Your task to perform on an android device: Clear the shopping cart on ebay.com. Search for "asus zenbook" on ebay.com, select the first entry, and add it to the cart. Image 0: 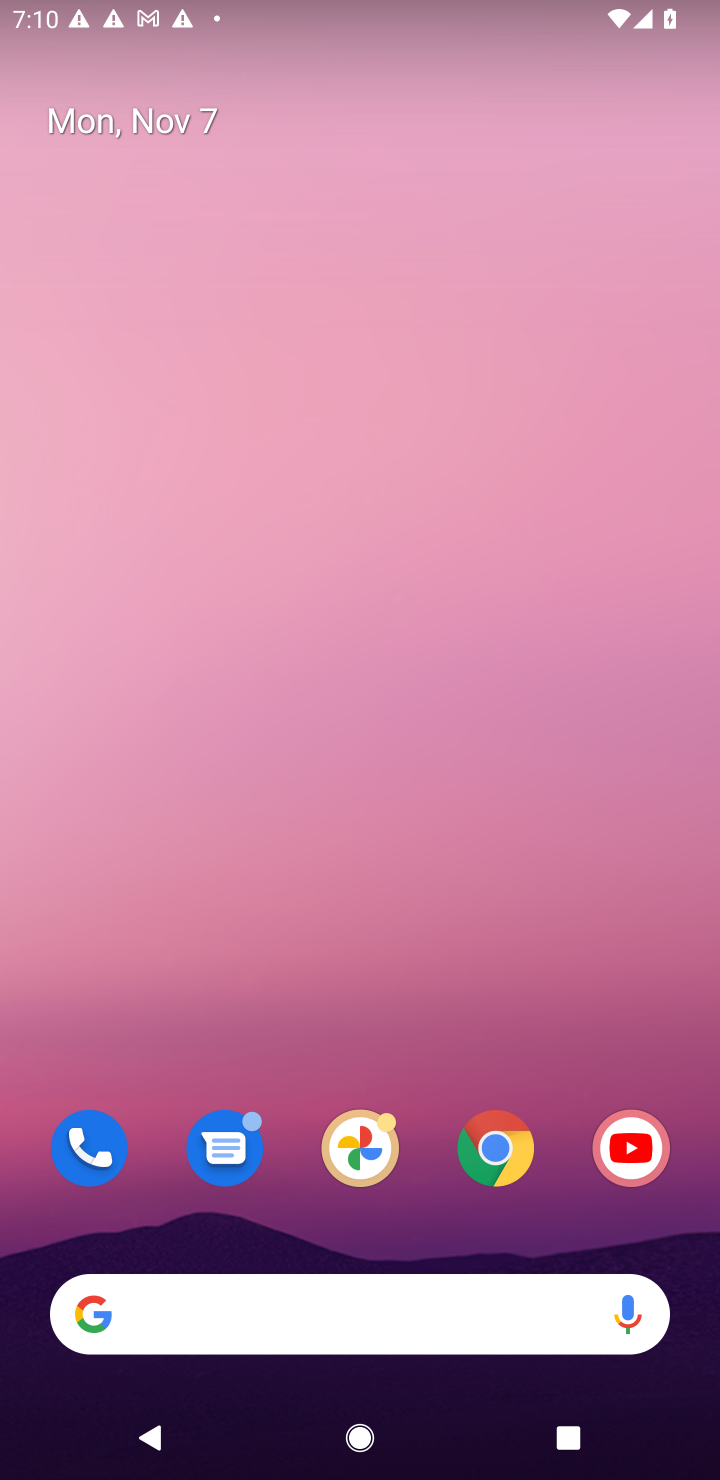
Step 0: click (501, 1143)
Your task to perform on an android device: Clear the shopping cart on ebay.com. Search for "asus zenbook" on ebay.com, select the first entry, and add it to the cart. Image 1: 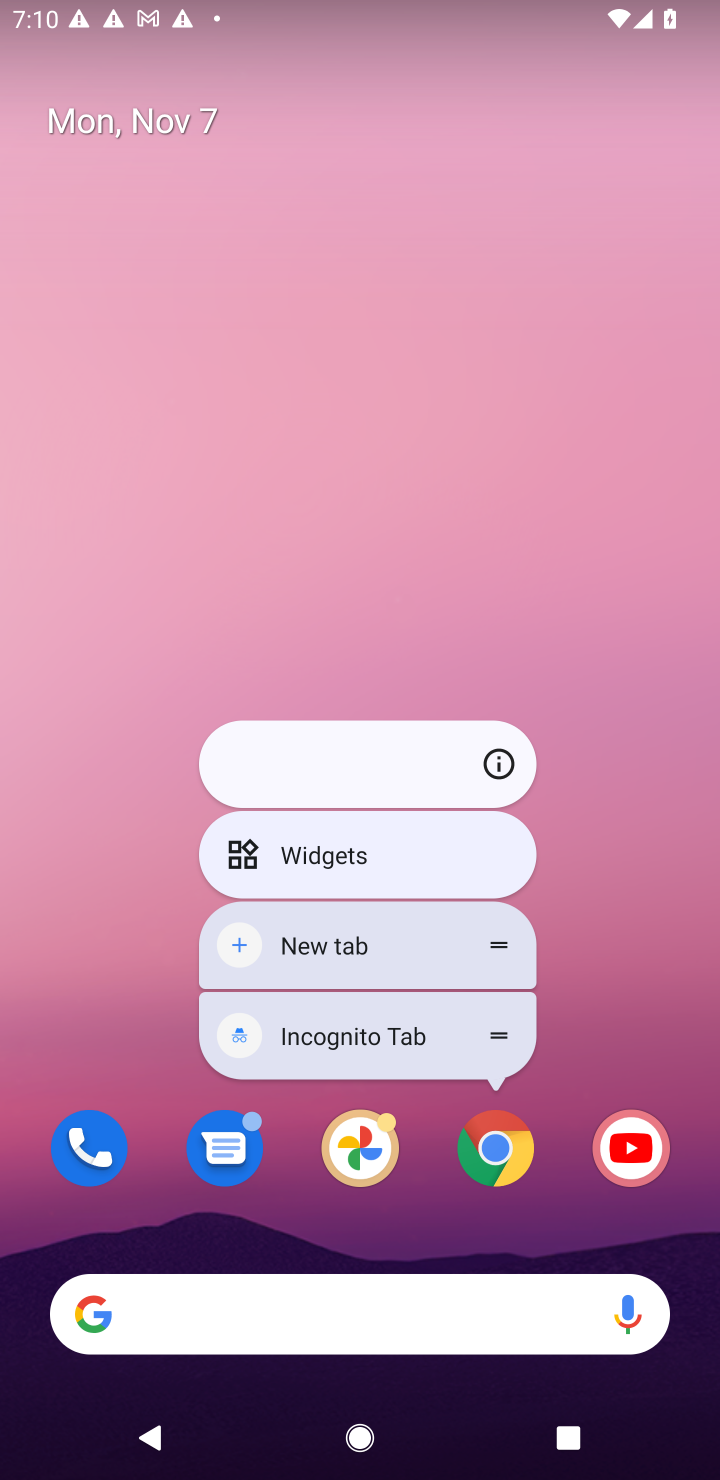
Step 1: click (501, 1143)
Your task to perform on an android device: Clear the shopping cart on ebay.com. Search for "asus zenbook" on ebay.com, select the first entry, and add it to the cart. Image 2: 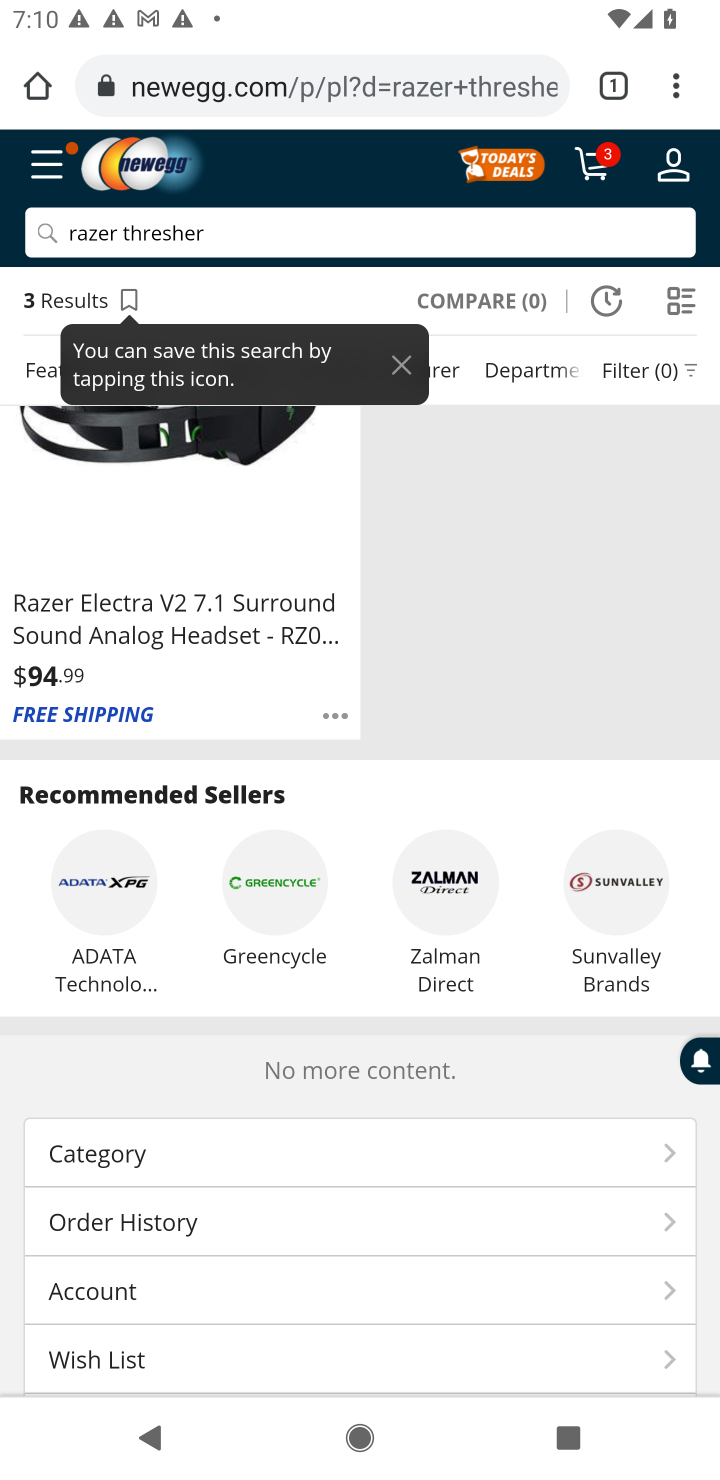
Step 2: click (223, 93)
Your task to perform on an android device: Clear the shopping cart on ebay.com. Search for "asus zenbook" on ebay.com, select the first entry, and add it to the cart. Image 3: 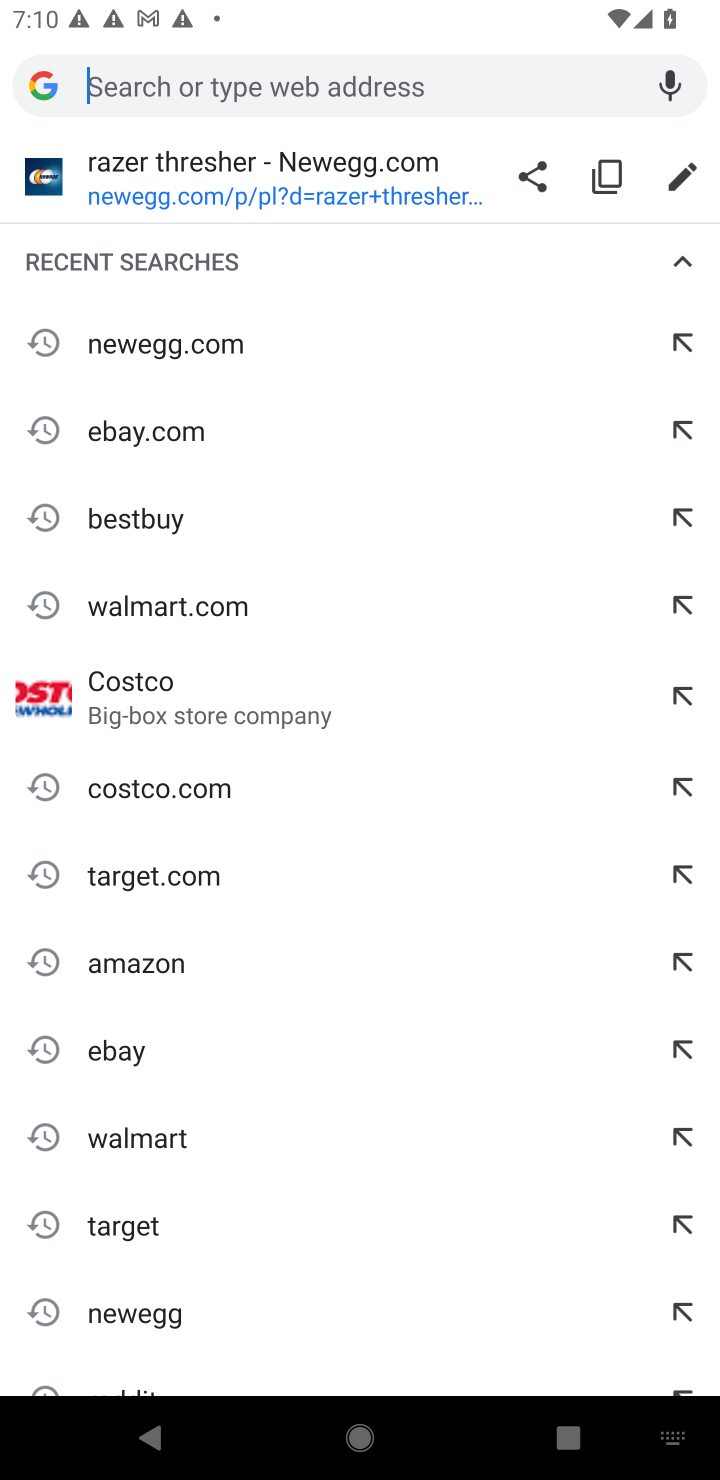
Step 3: type "ebay.com"
Your task to perform on an android device: Clear the shopping cart on ebay.com. Search for "asus zenbook" on ebay.com, select the first entry, and add it to the cart. Image 4: 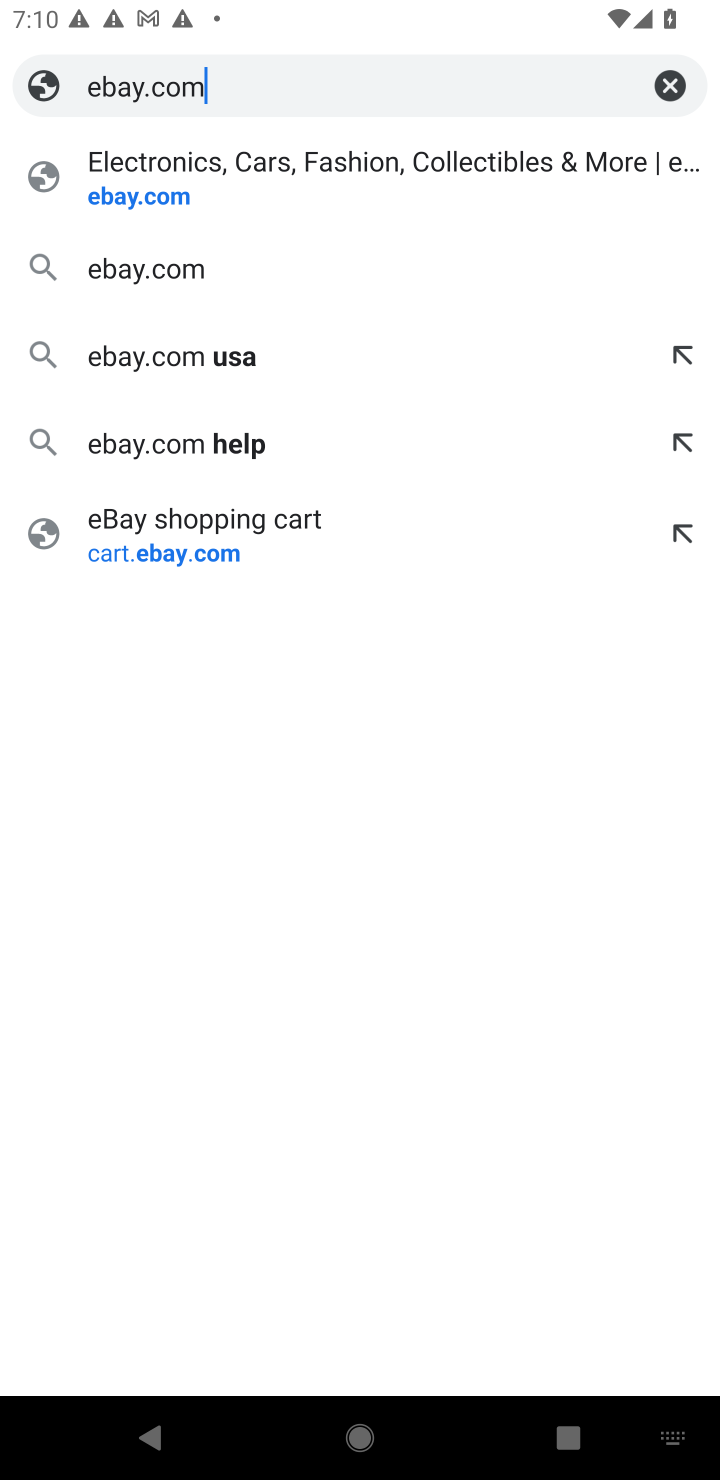
Step 4: click (189, 281)
Your task to perform on an android device: Clear the shopping cart on ebay.com. Search for "asus zenbook" on ebay.com, select the first entry, and add it to the cart. Image 5: 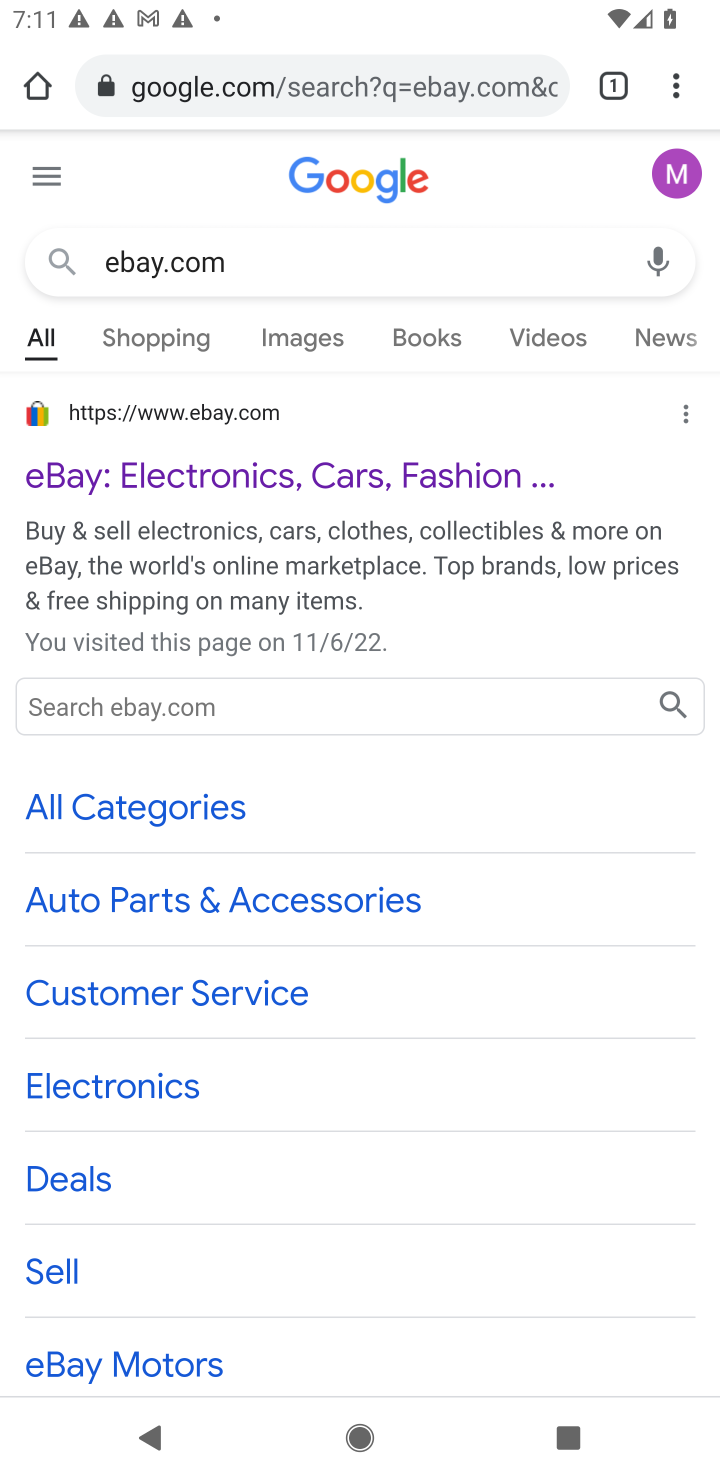
Step 5: click (229, 403)
Your task to perform on an android device: Clear the shopping cart on ebay.com. Search for "asus zenbook" on ebay.com, select the first entry, and add it to the cart. Image 6: 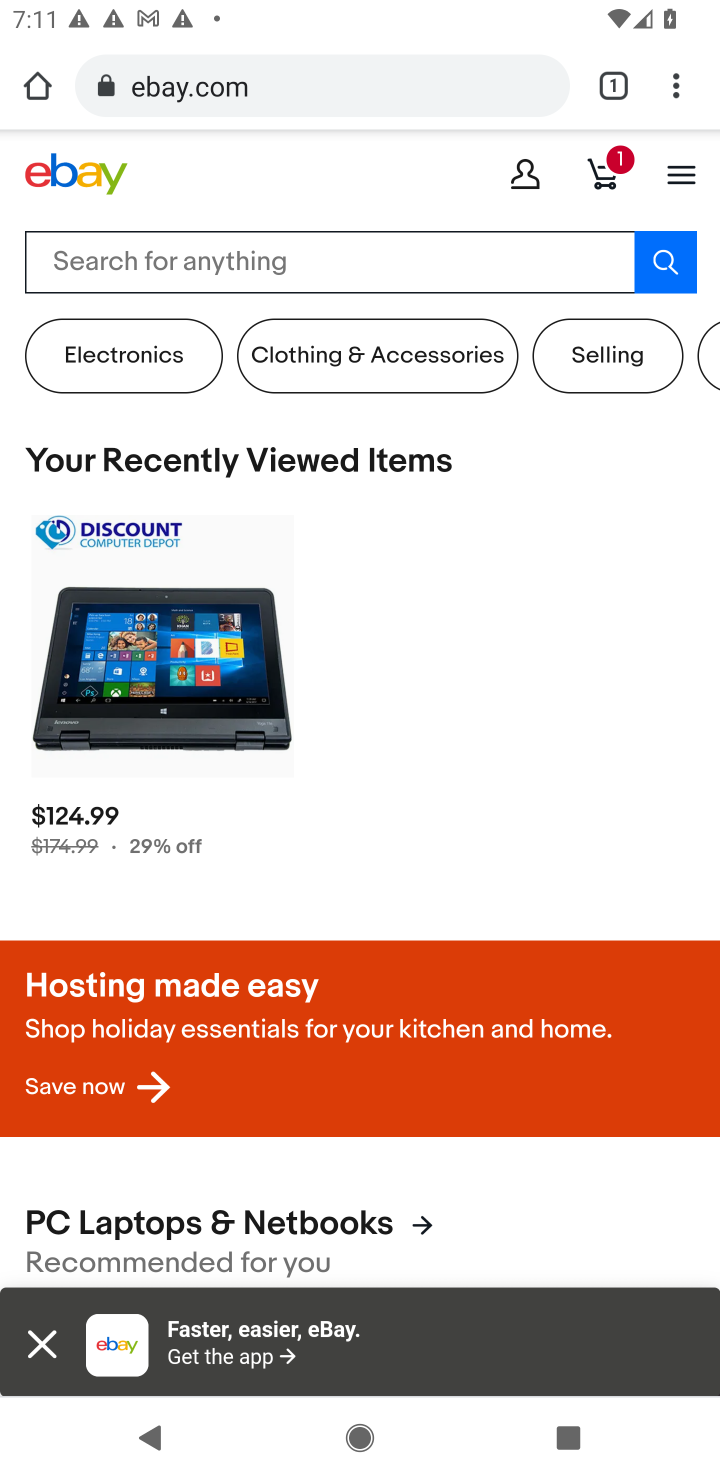
Step 6: click (619, 176)
Your task to perform on an android device: Clear the shopping cart on ebay.com. Search for "asus zenbook" on ebay.com, select the first entry, and add it to the cart. Image 7: 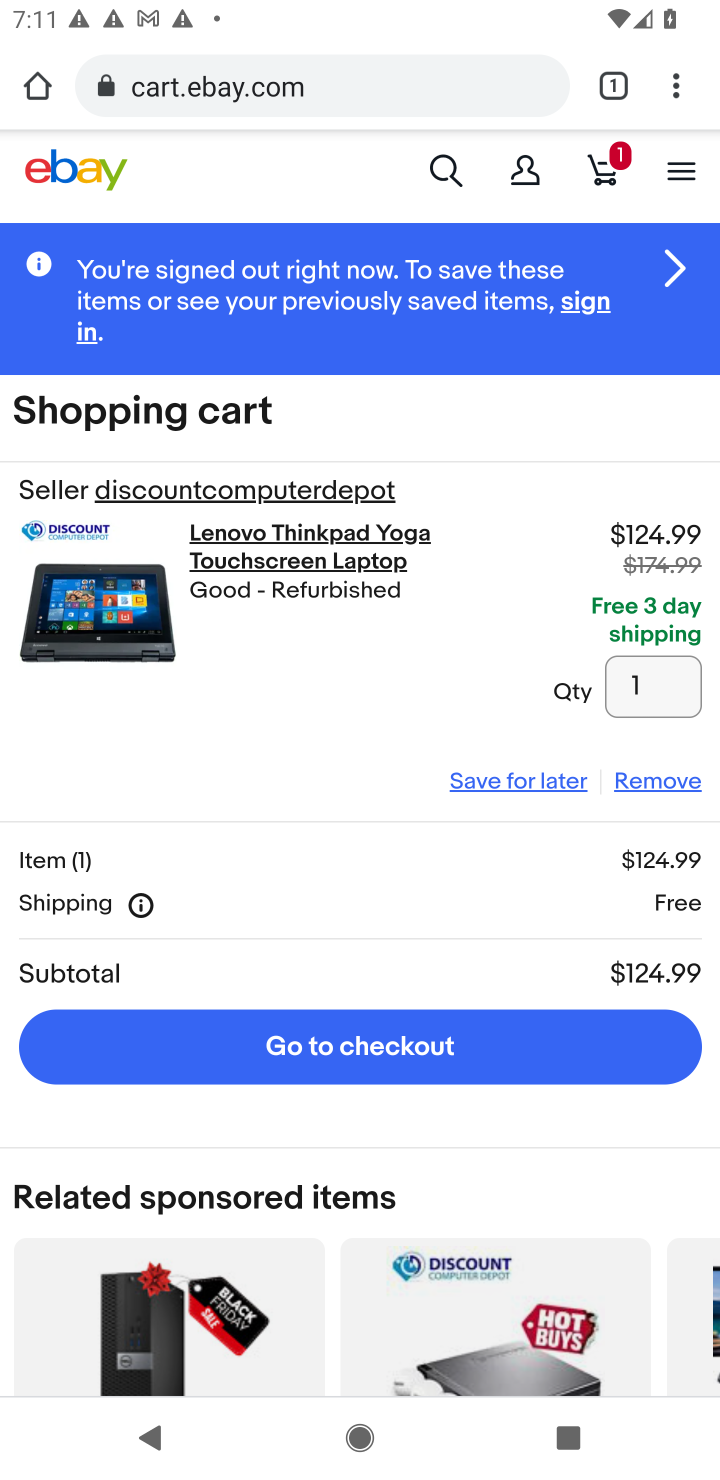
Step 7: click (653, 786)
Your task to perform on an android device: Clear the shopping cart on ebay.com. Search for "asus zenbook" on ebay.com, select the first entry, and add it to the cart. Image 8: 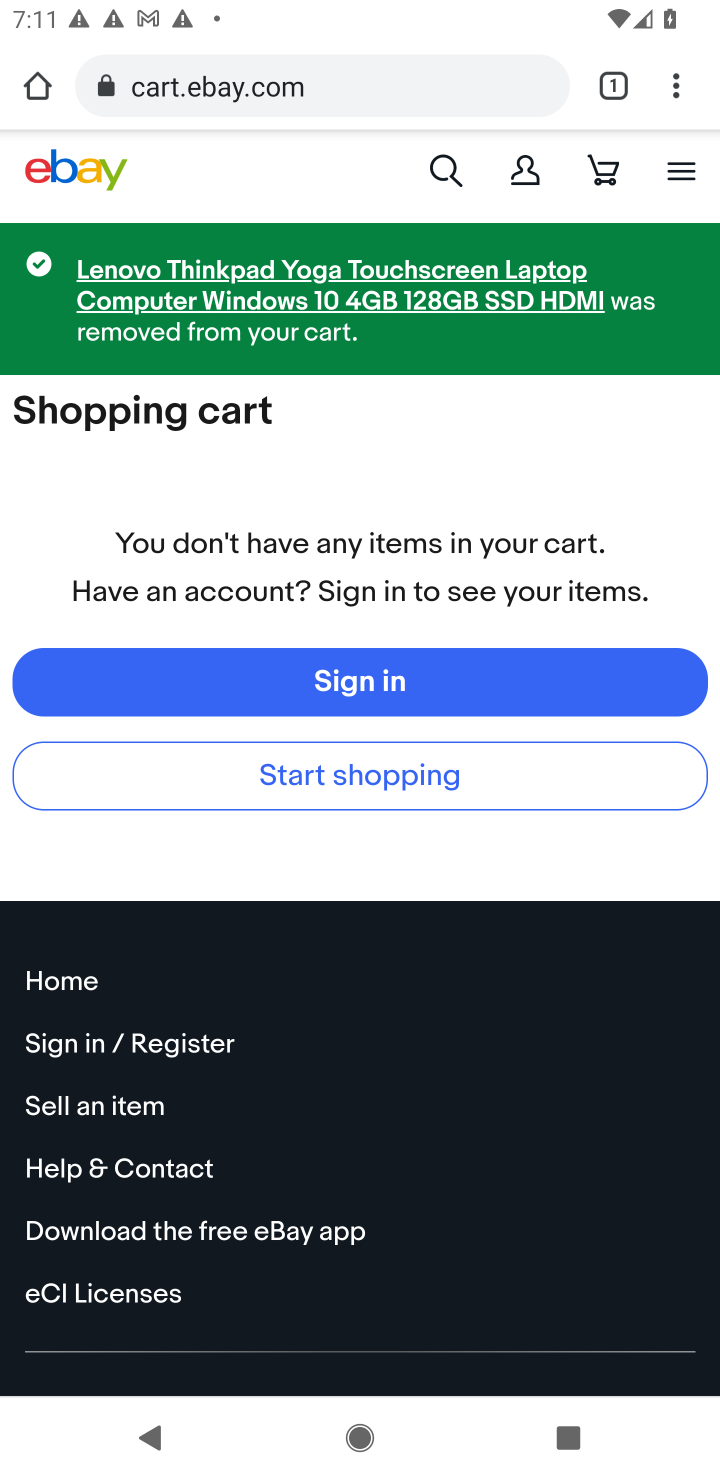
Step 8: click (444, 160)
Your task to perform on an android device: Clear the shopping cart on ebay.com. Search for "asus zenbook" on ebay.com, select the first entry, and add it to the cart. Image 9: 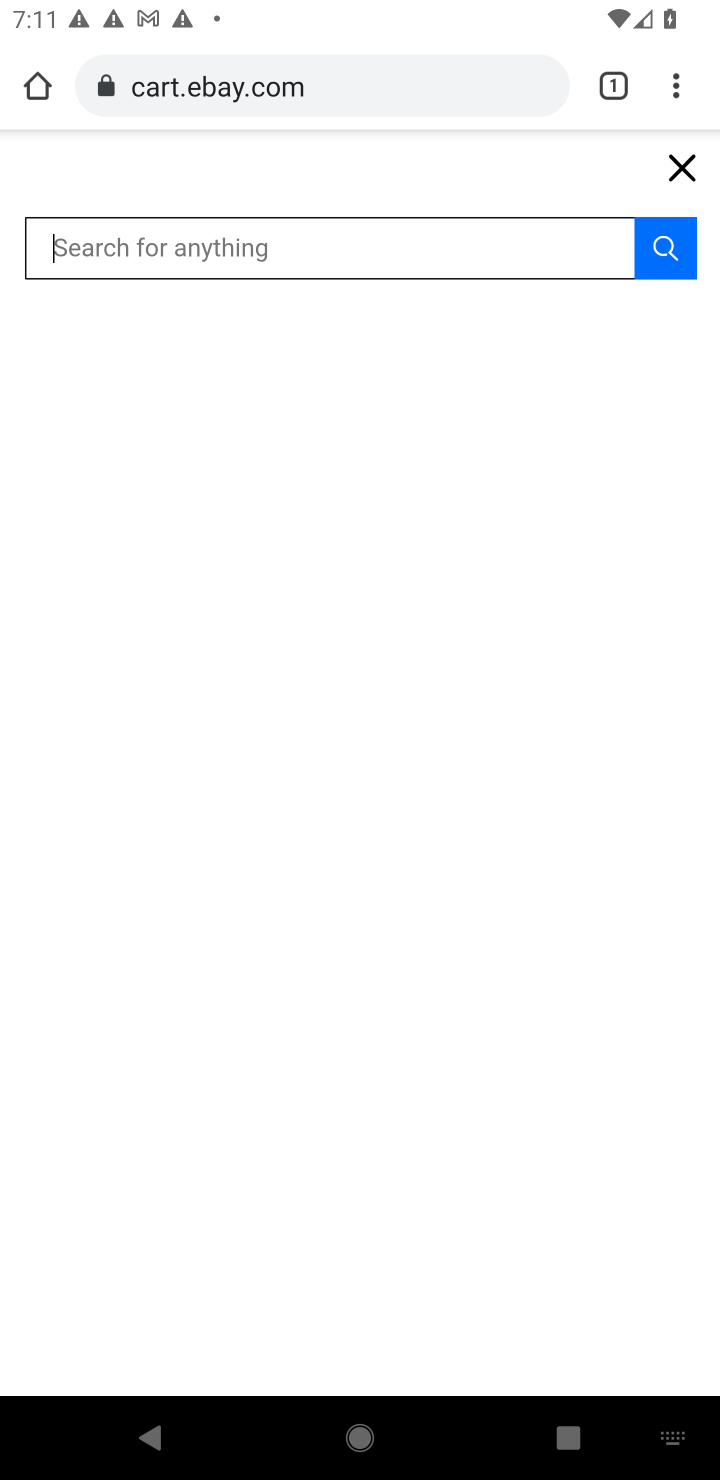
Step 9: type "asus zenbook"
Your task to perform on an android device: Clear the shopping cart on ebay.com. Search for "asus zenbook" on ebay.com, select the first entry, and add it to the cart. Image 10: 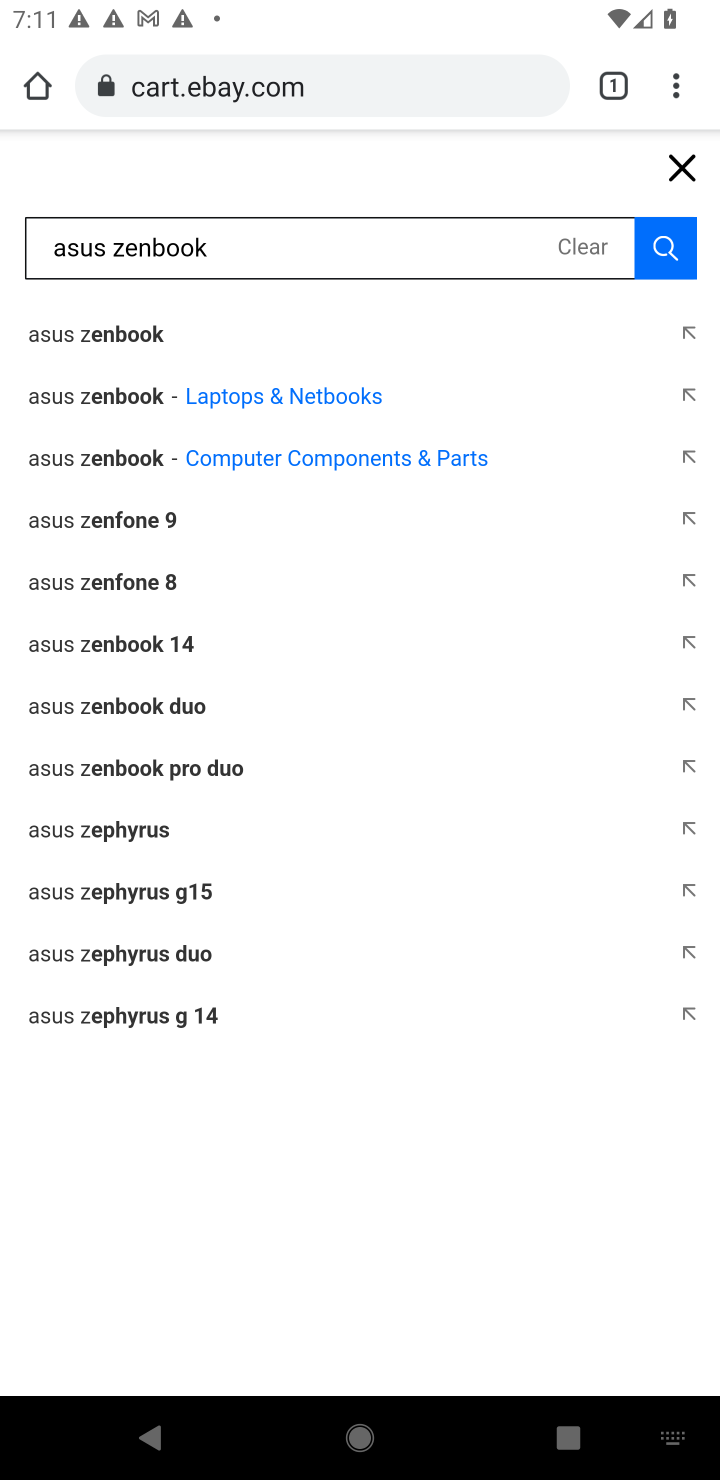
Step 10: click (134, 338)
Your task to perform on an android device: Clear the shopping cart on ebay.com. Search for "asus zenbook" on ebay.com, select the first entry, and add it to the cart. Image 11: 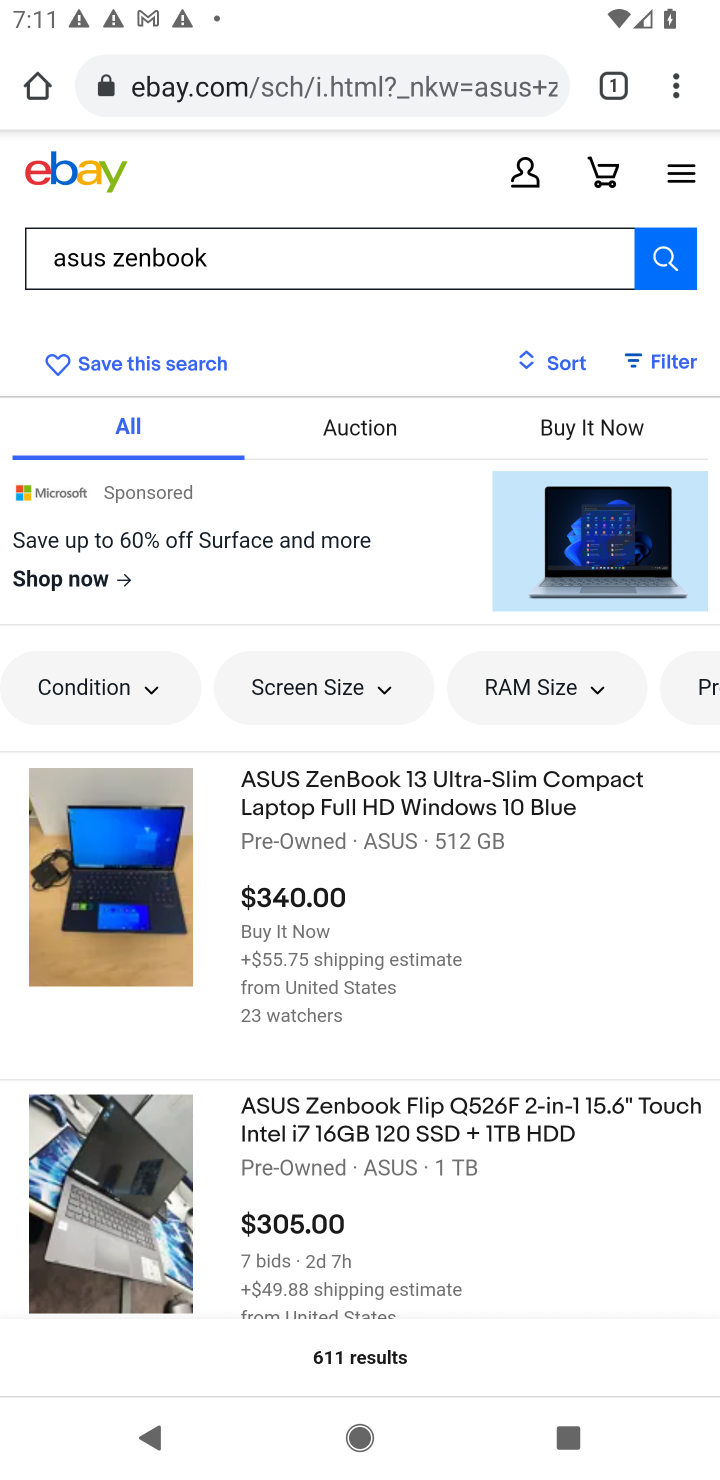
Step 11: click (135, 1210)
Your task to perform on an android device: Clear the shopping cart on ebay.com. Search for "asus zenbook" on ebay.com, select the first entry, and add it to the cart. Image 12: 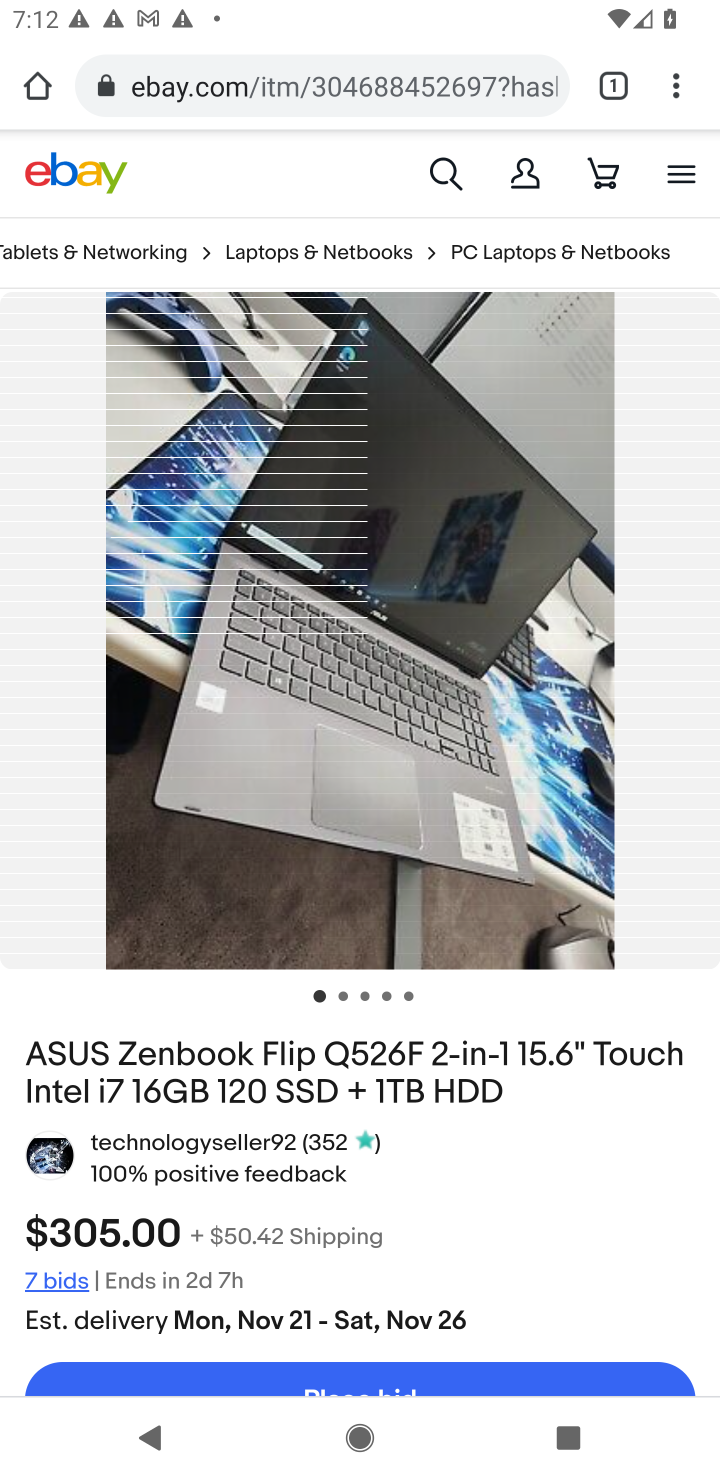
Step 12: drag from (205, 1158) to (246, 768)
Your task to perform on an android device: Clear the shopping cart on ebay.com. Search for "asus zenbook" on ebay.com, select the first entry, and add it to the cart. Image 13: 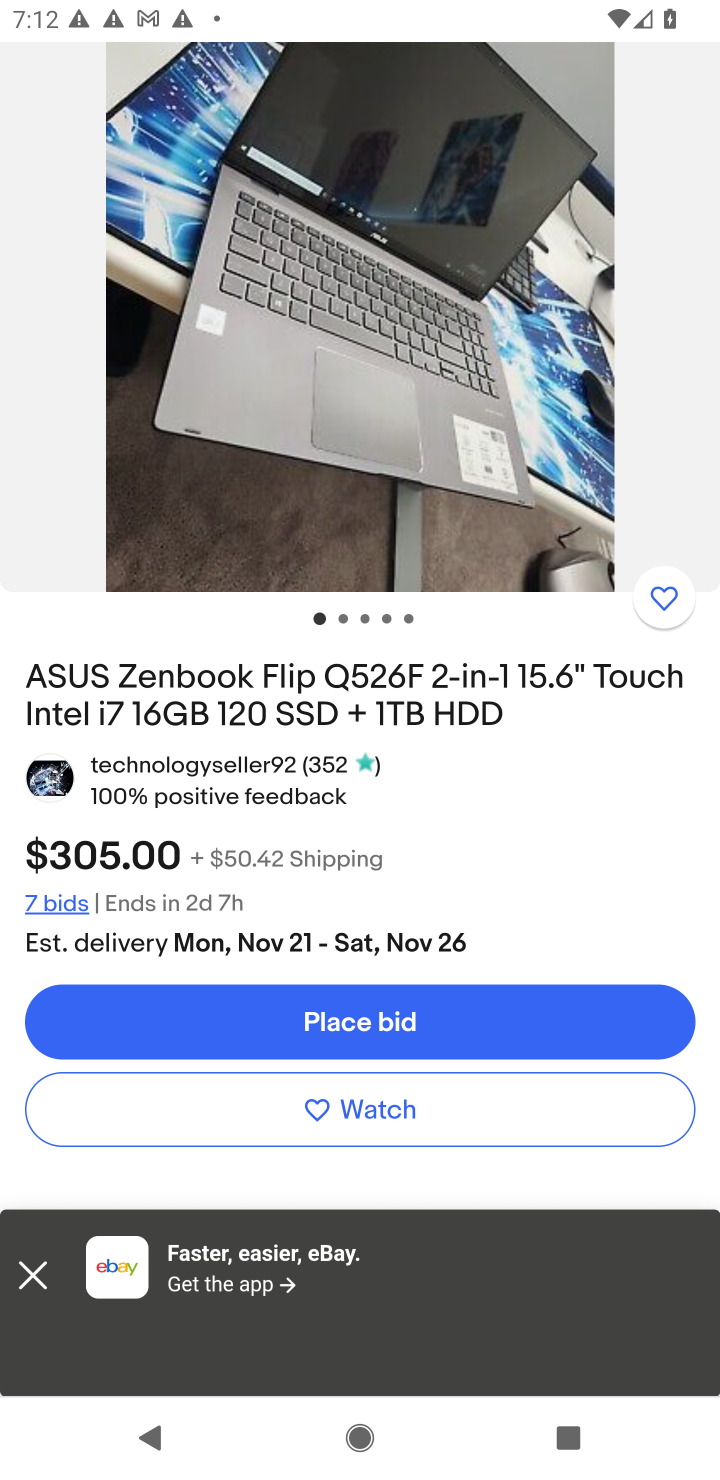
Step 13: press back button
Your task to perform on an android device: Clear the shopping cart on ebay.com. Search for "asus zenbook" on ebay.com, select the first entry, and add it to the cart. Image 14: 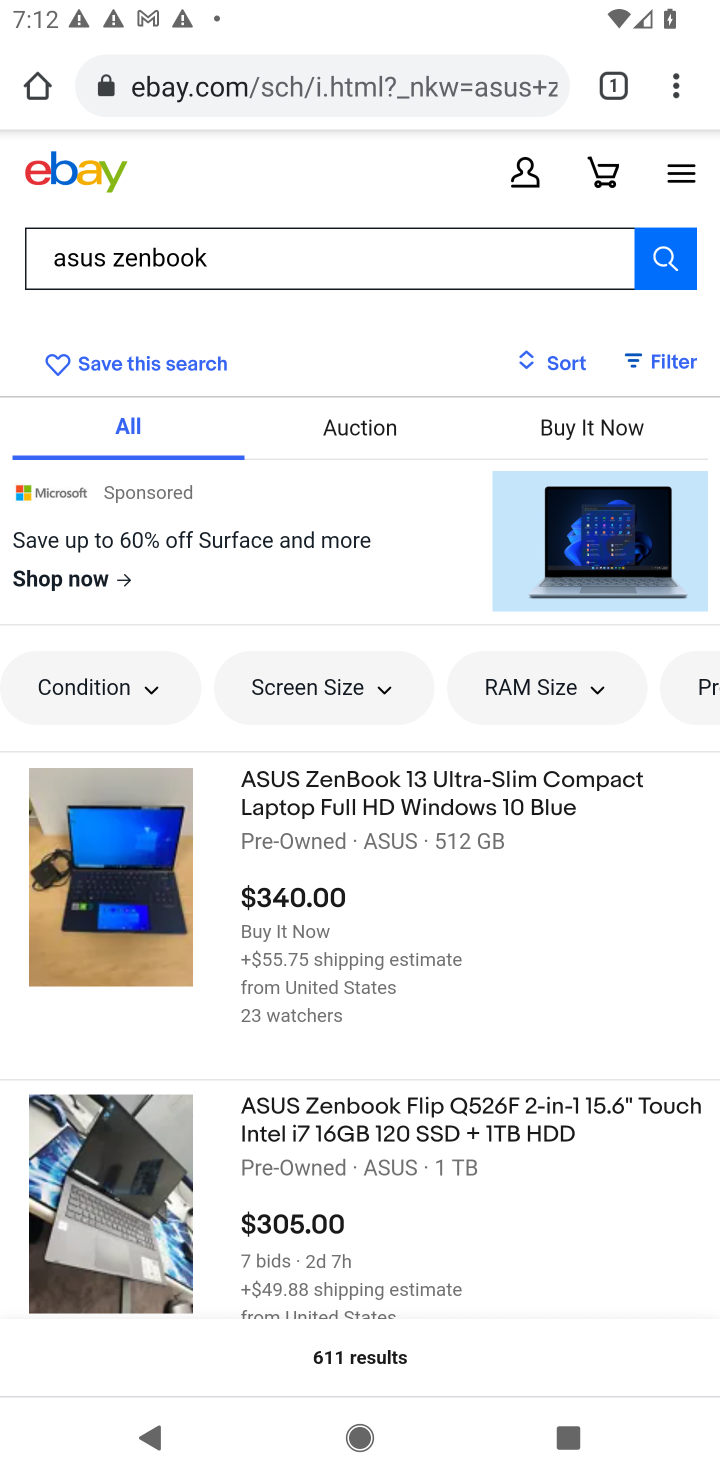
Step 14: click (109, 894)
Your task to perform on an android device: Clear the shopping cart on ebay.com. Search for "asus zenbook" on ebay.com, select the first entry, and add it to the cart. Image 15: 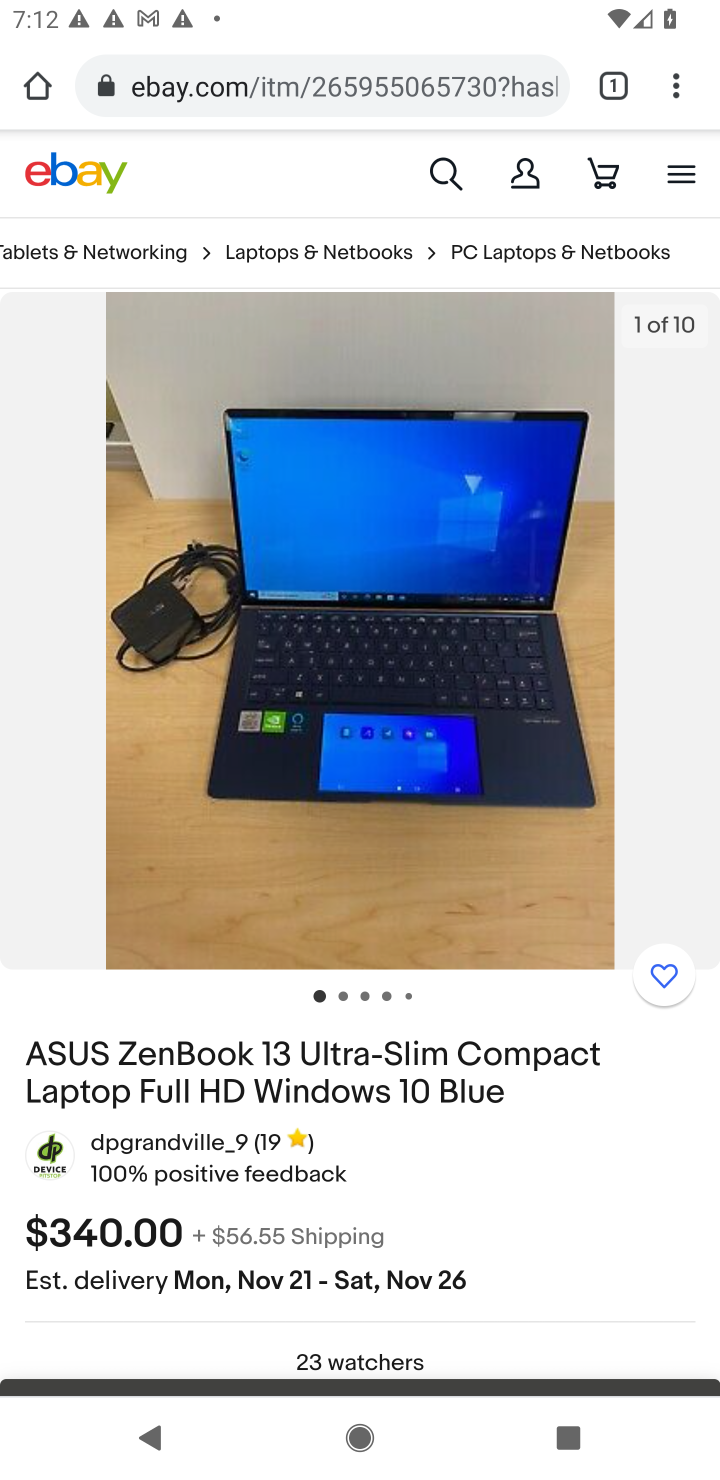
Step 15: drag from (455, 1026) to (462, 691)
Your task to perform on an android device: Clear the shopping cart on ebay.com. Search for "asus zenbook" on ebay.com, select the first entry, and add it to the cart. Image 16: 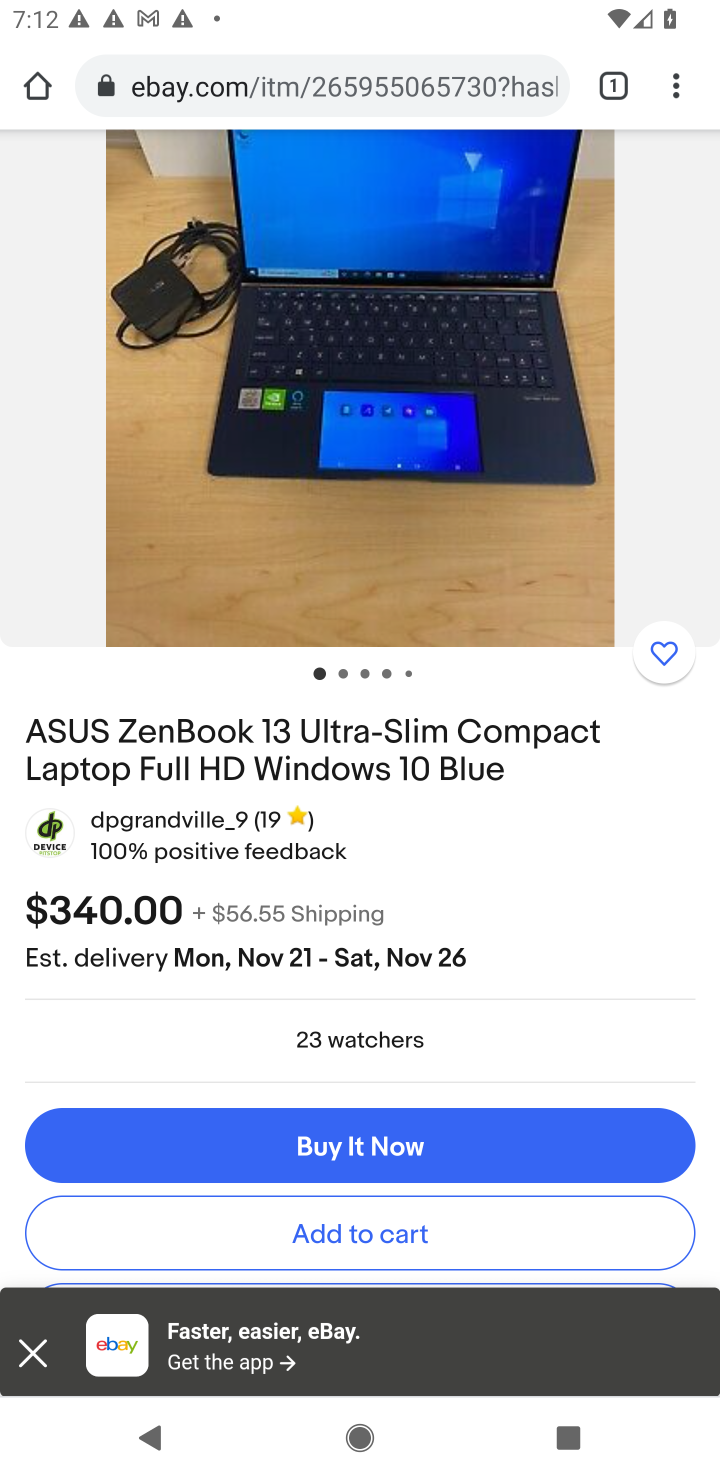
Step 16: click (240, 1221)
Your task to perform on an android device: Clear the shopping cart on ebay.com. Search for "asus zenbook" on ebay.com, select the first entry, and add it to the cart. Image 17: 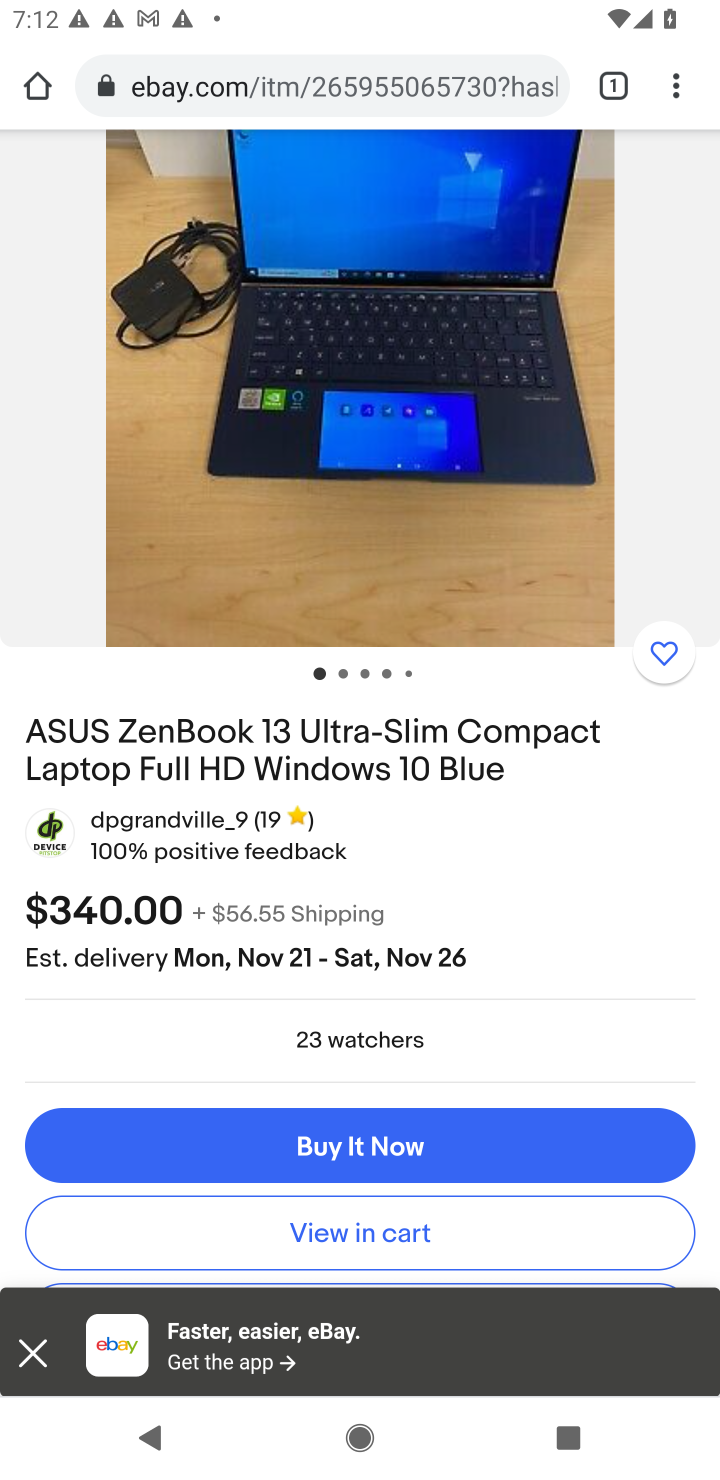
Step 17: task complete